Your task to perform on an android device: find snoozed emails in the gmail app Image 0: 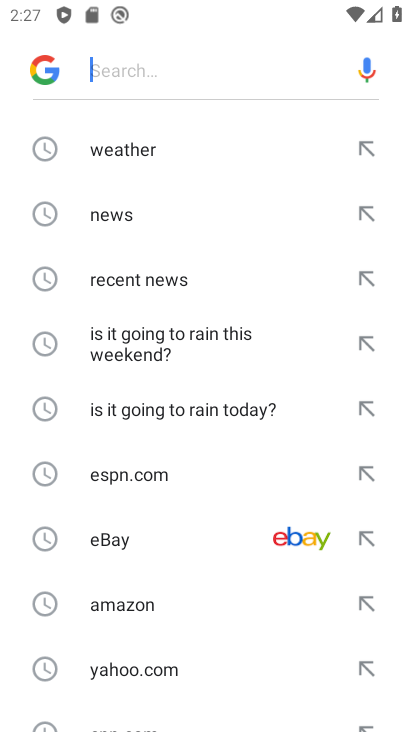
Step 0: press home button
Your task to perform on an android device: find snoozed emails in the gmail app Image 1: 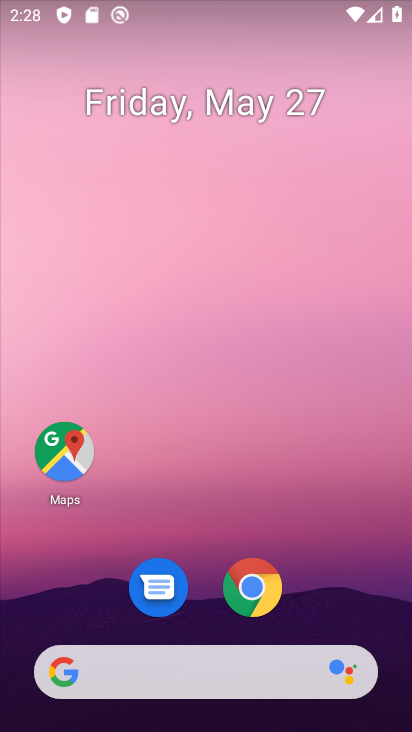
Step 1: drag from (322, 619) to (341, 238)
Your task to perform on an android device: find snoozed emails in the gmail app Image 2: 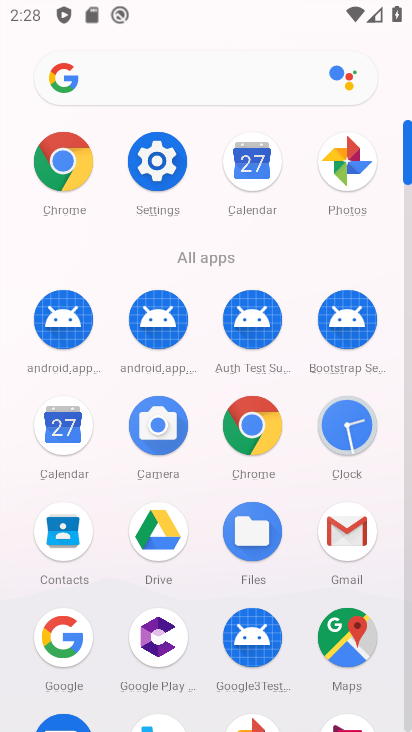
Step 2: click (358, 533)
Your task to perform on an android device: find snoozed emails in the gmail app Image 3: 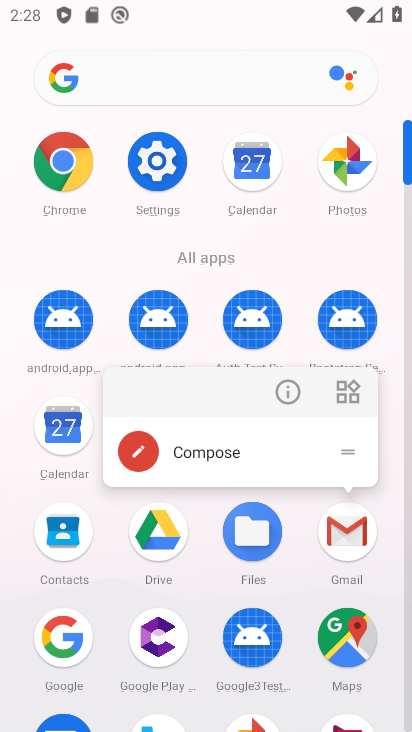
Step 3: click (357, 533)
Your task to perform on an android device: find snoozed emails in the gmail app Image 4: 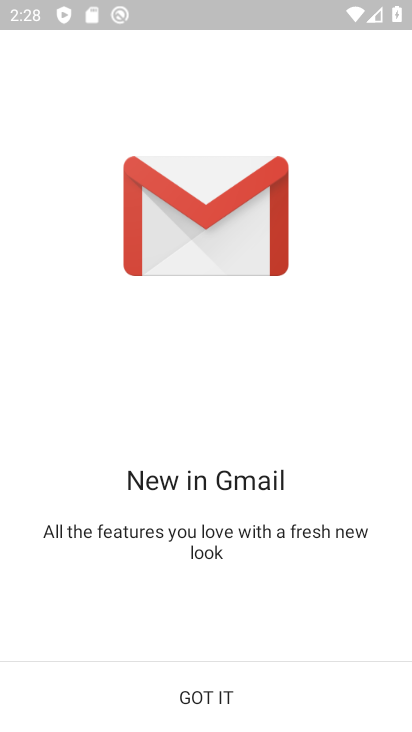
Step 4: click (202, 702)
Your task to perform on an android device: find snoozed emails in the gmail app Image 5: 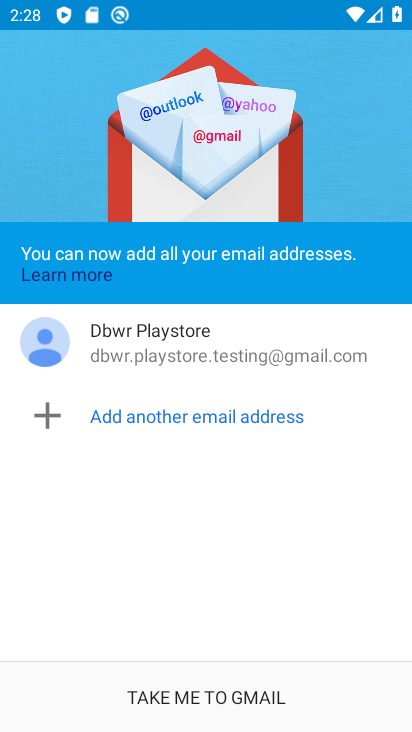
Step 5: click (203, 697)
Your task to perform on an android device: find snoozed emails in the gmail app Image 6: 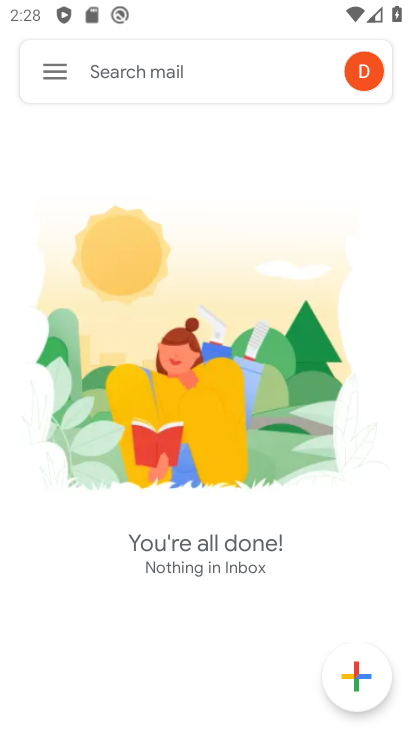
Step 6: click (70, 78)
Your task to perform on an android device: find snoozed emails in the gmail app Image 7: 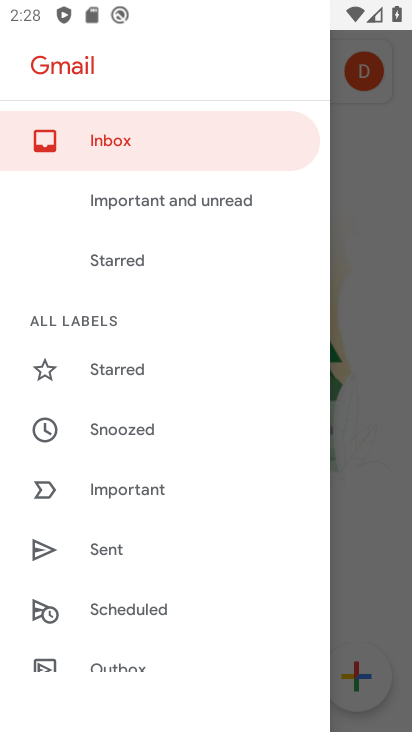
Step 7: click (126, 431)
Your task to perform on an android device: find snoozed emails in the gmail app Image 8: 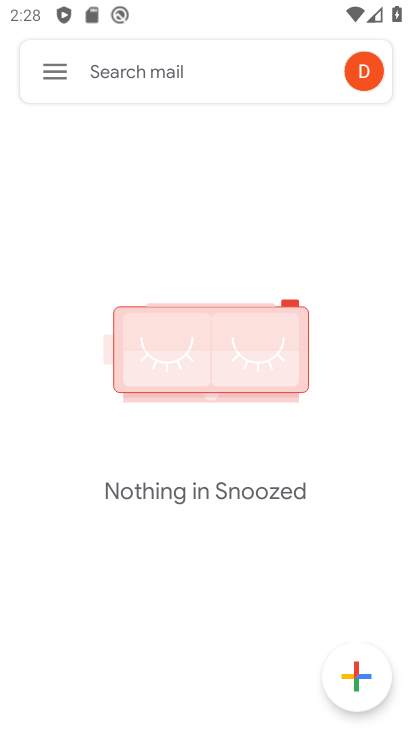
Step 8: task complete